Your task to perform on an android device: toggle sleep mode Image 0: 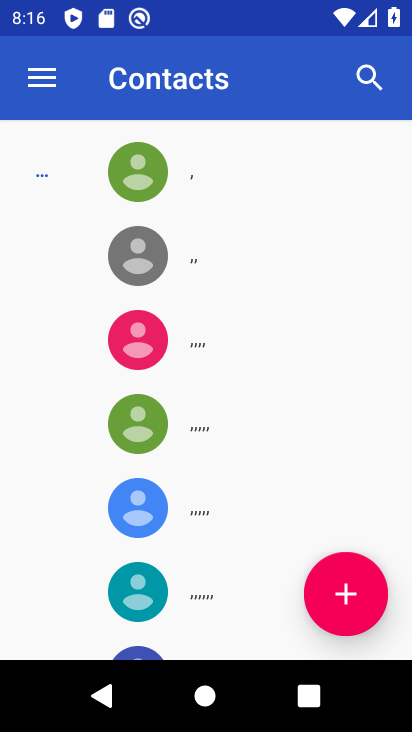
Step 0: press home button
Your task to perform on an android device: toggle sleep mode Image 1: 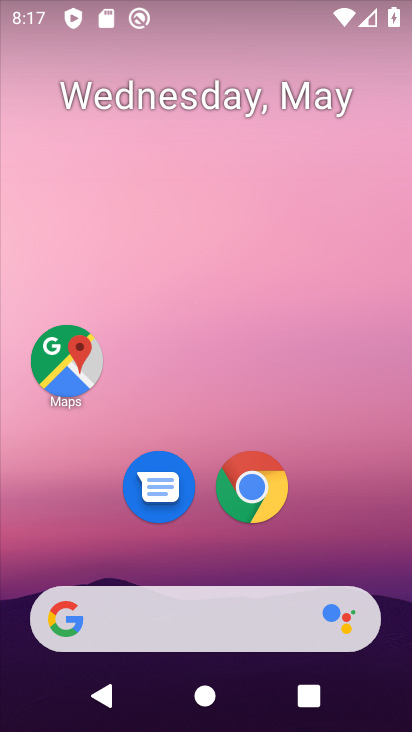
Step 1: drag from (315, 535) to (238, 124)
Your task to perform on an android device: toggle sleep mode Image 2: 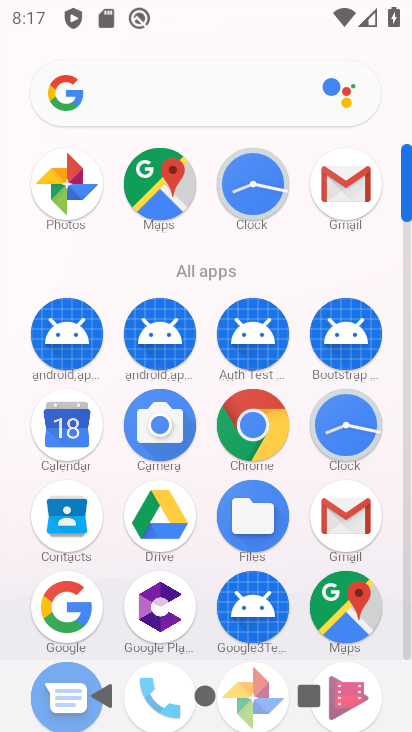
Step 2: drag from (206, 479) to (179, 29)
Your task to perform on an android device: toggle sleep mode Image 3: 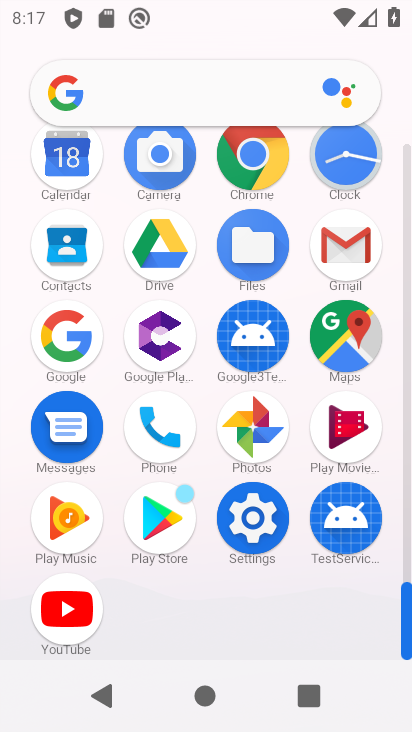
Step 3: click (249, 516)
Your task to perform on an android device: toggle sleep mode Image 4: 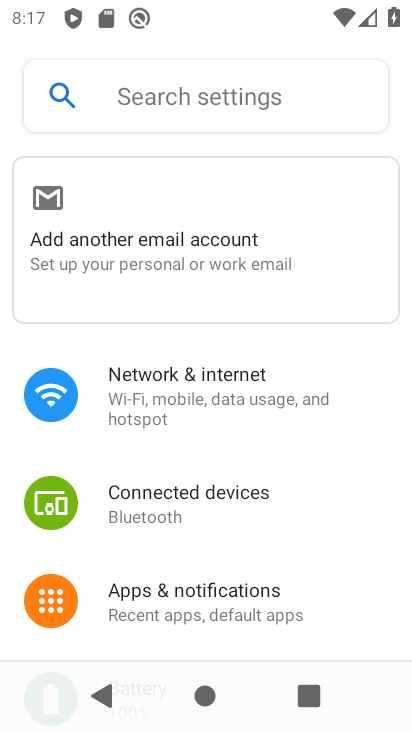
Step 4: drag from (236, 545) to (182, 217)
Your task to perform on an android device: toggle sleep mode Image 5: 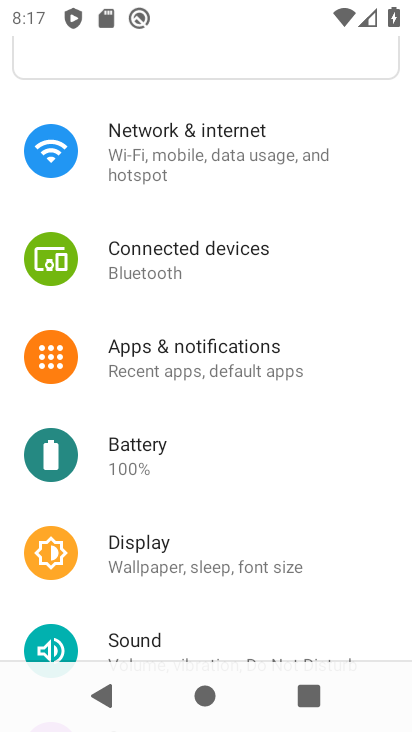
Step 5: click (136, 540)
Your task to perform on an android device: toggle sleep mode Image 6: 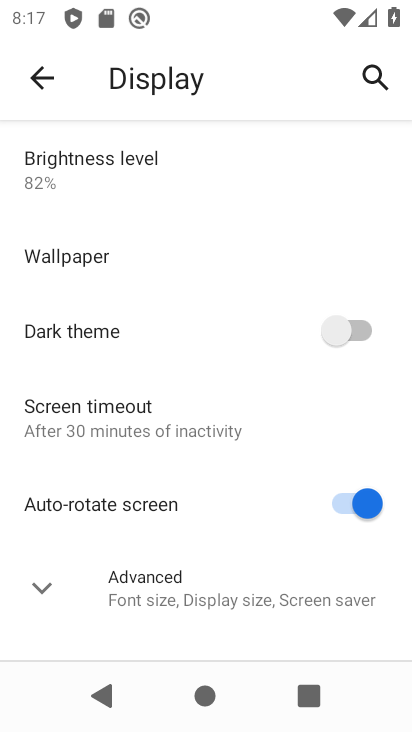
Step 6: task complete